Your task to perform on an android device: make emails show in primary in the gmail app Image 0: 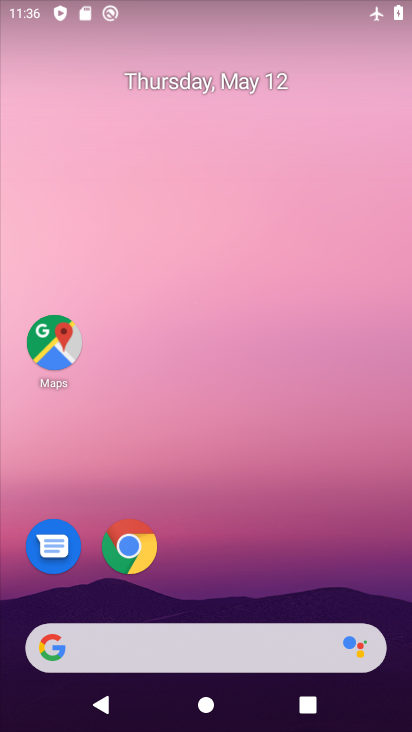
Step 0: drag from (227, 722) to (233, 129)
Your task to perform on an android device: make emails show in primary in the gmail app Image 1: 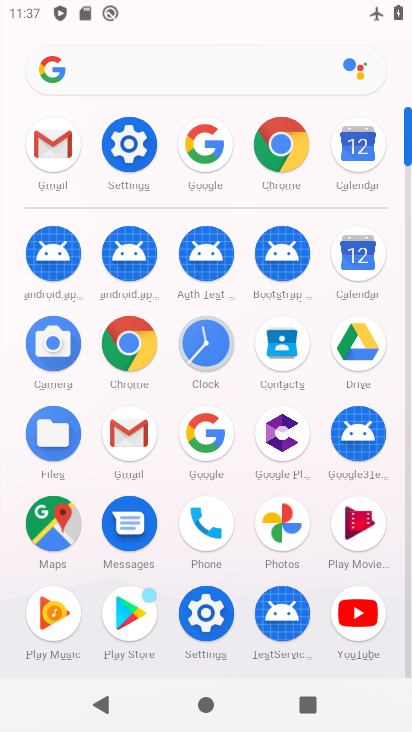
Step 1: click (121, 430)
Your task to perform on an android device: make emails show in primary in the gmail app Image 2: 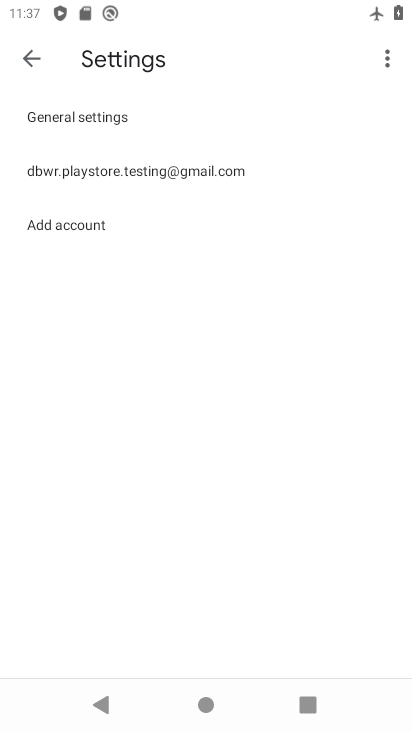
Step 2: click (112, 171)
Your task to perform on an android device: make emails show in primary in the gmail app Image 3: 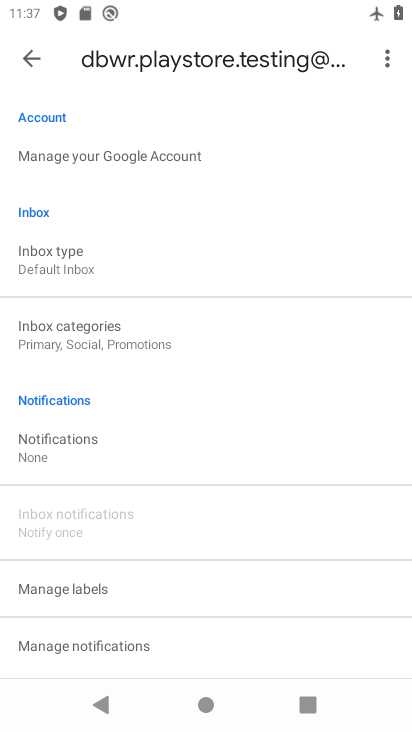
Step 3: drag from (133, 617) to (134, 412)
Your task to perform on an android device: make emails show in primary in the gmail app Image 4: 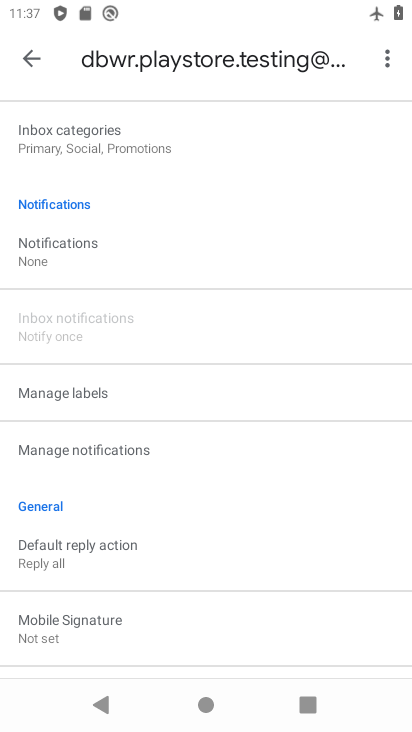
Step 4: drag from (170, 158) to (189, 315)
Your task to perform on an android device: make emails show in primary in the gmail app Image 5: 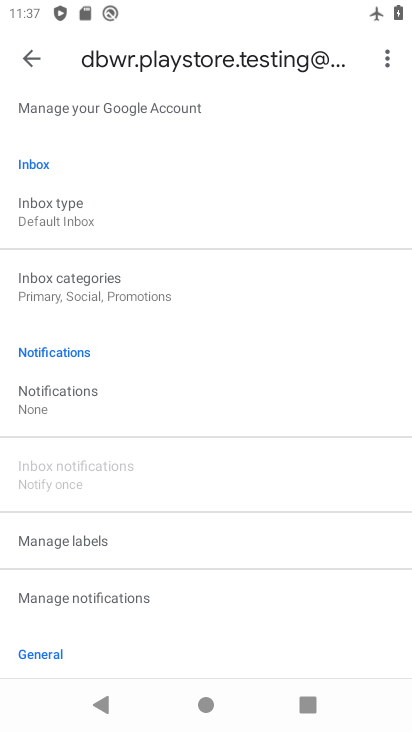
Step 5: click (102, 283)
Your task to perform on an android device: make emails show in primary in the gmail app Image 6: 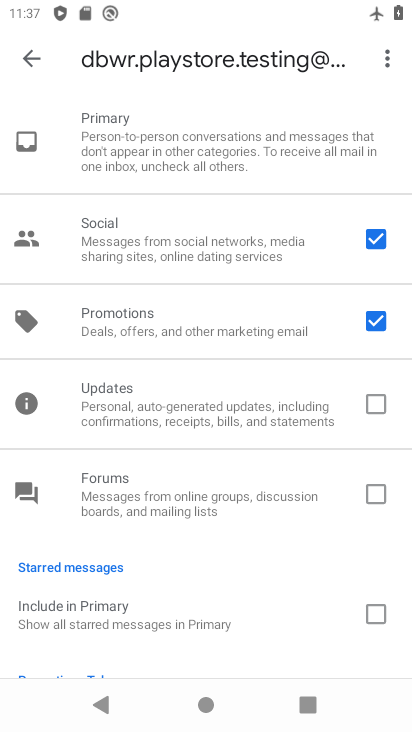
Step 6: click (375, 321)
Your task to perform on an android device: make emails show in primary in the gmail app Image 7: 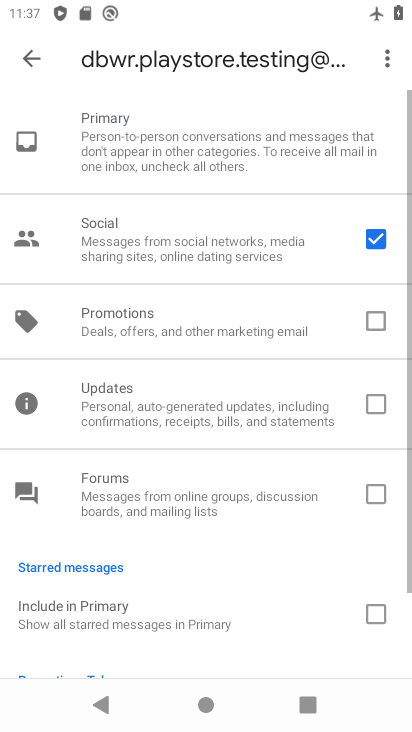
Step 7: click (374, 234)
Your task to perform on an android device: make emails show in primary in the gmail app Image 8: 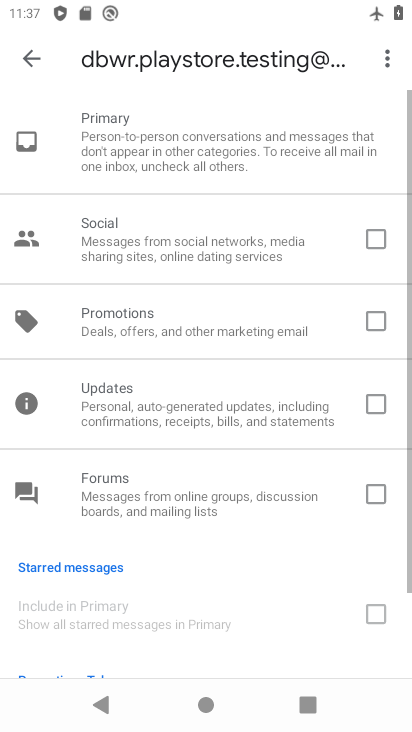
Step 8: click (33, 55)
Your task to perform on an android device: make emails show in primary in the gmail app Image 9: 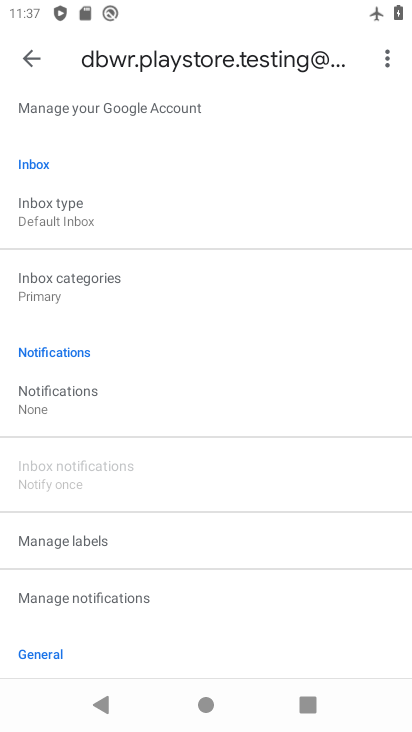
Step 9: task complete